Your task to perform on an android device: set an alarm Image 0: 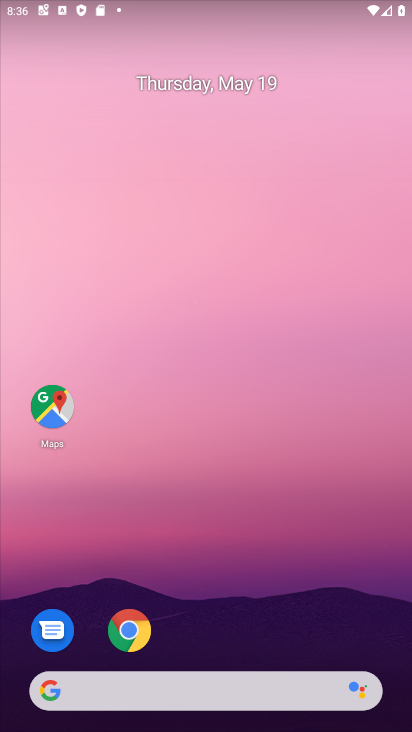
Step 0: drag from (381, 632) to (334, 76)
Your task to perform on an android device: set an alarm Image 1: 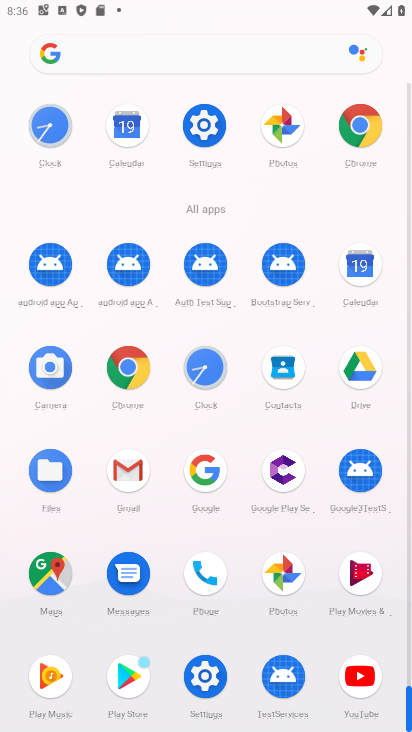
Step 1: click (205, 365)
Your task to perform on an android device: set an alarm Image 2: 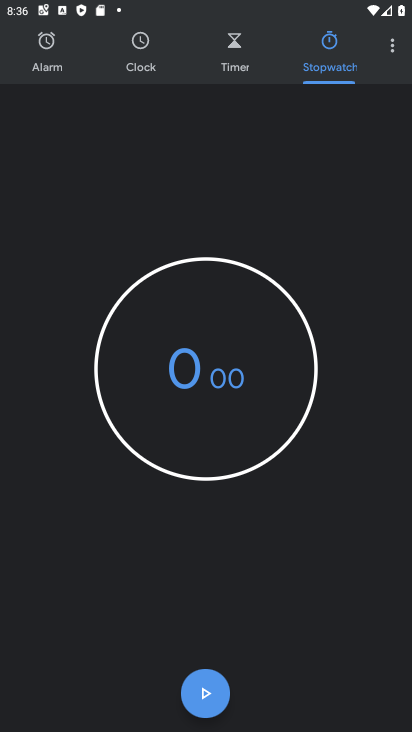
Step 2: click (42, 44)
Your task to perform on an android device: set an alarm Image 3: 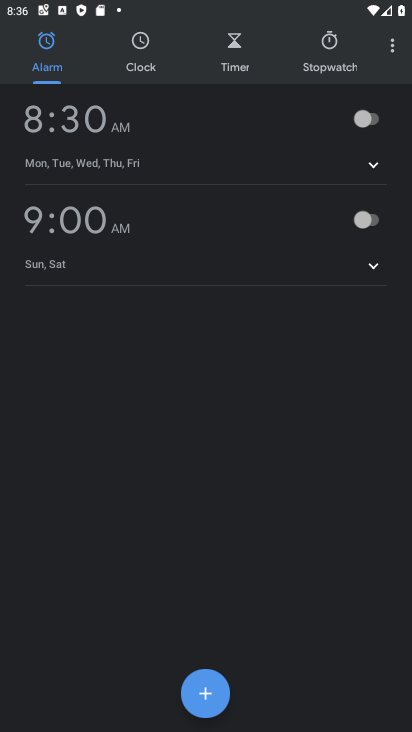
Step 3: click (43, 114)
Your task to perform on an android device: set an alarm Image 4: 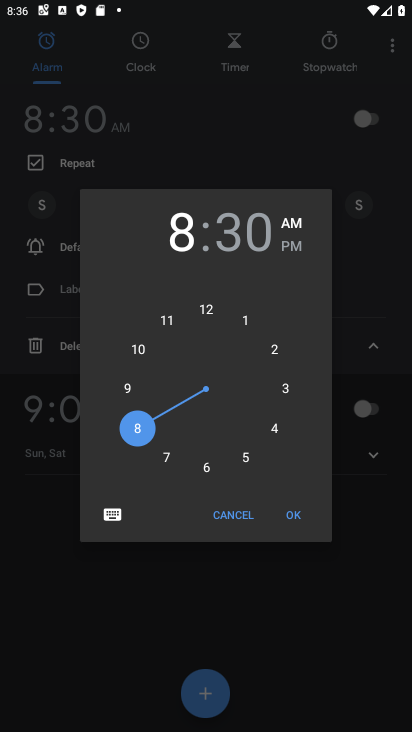
Step 4: click (206, 469)
Your task to perform on an android device: set an alarm Image 5: 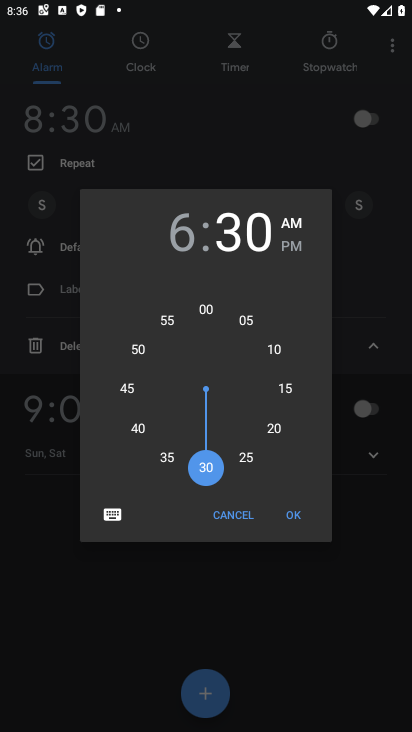
Step 5: click (289, 392)
Your task to perform on an android device: set an alarm Image 6: 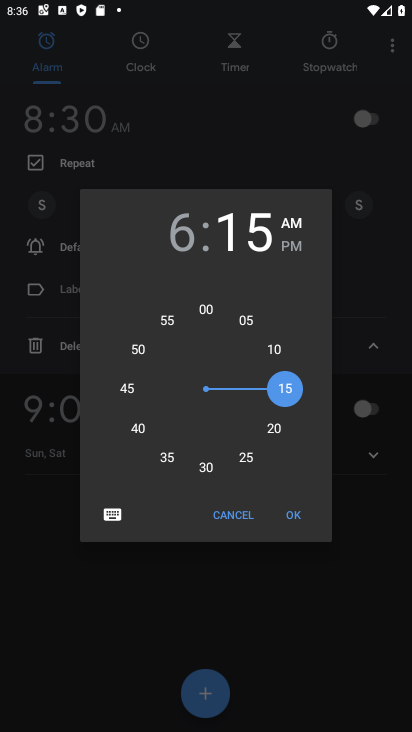
Step 6: click (292, 521)
Your task to perform on an android device: set an alarm Image 7: 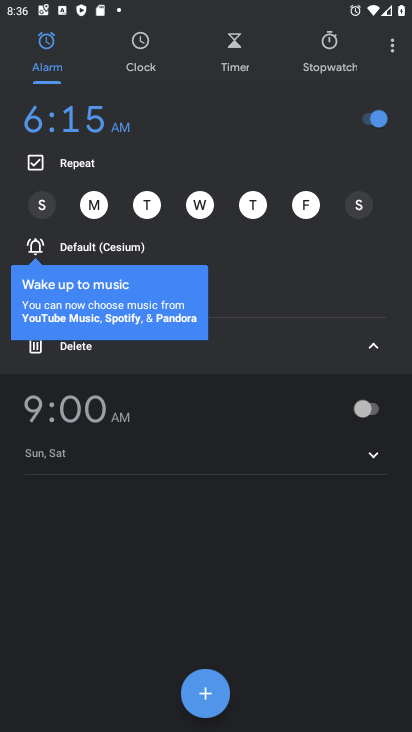
Step 7: click (351, 204)
Your task to perform on an android device: set an alarm Image 8: 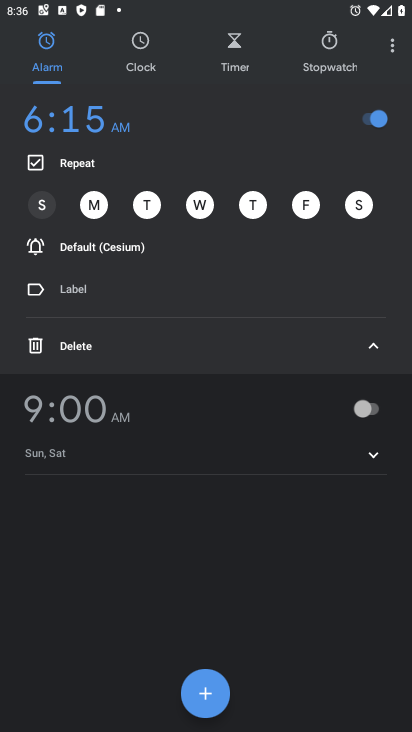
Step 8: click (372, 346)
Your task to perform on an android device: set an alarm Image 9: 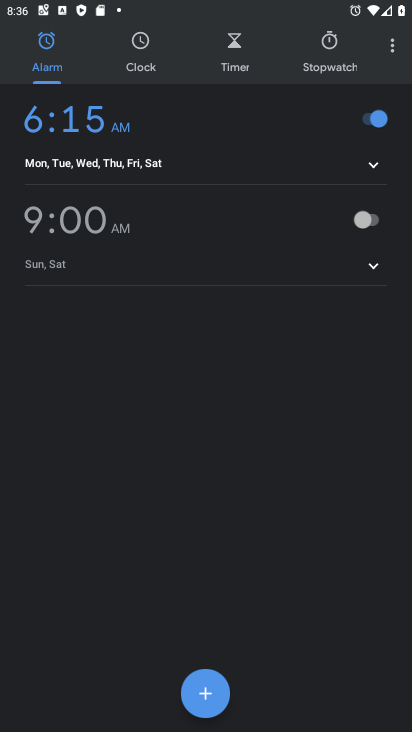
Step 9: task complete